Your task to perform on an android device: clear all cookies in the chrome app Image 0: 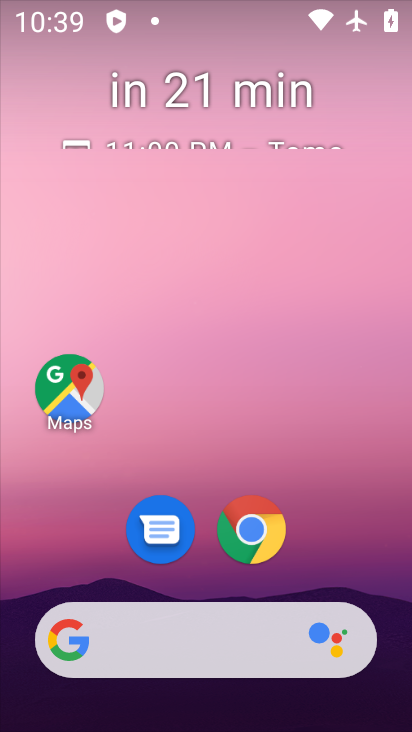
Step 0: drag from (315, 641) to (229, 317)
Your task to perform on an android device: clear all cookies in the chrome app Image 1: 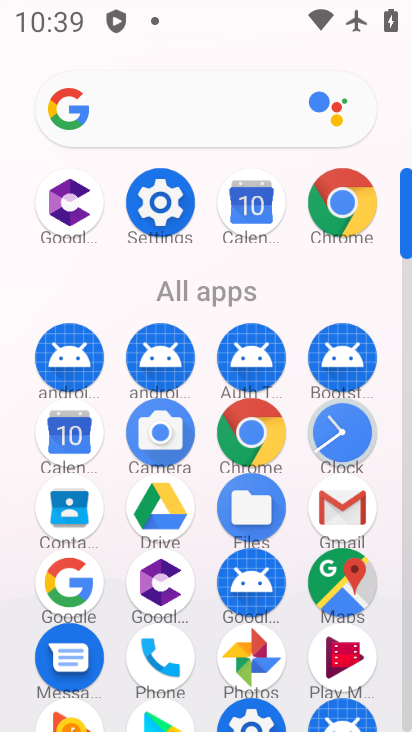
Step 1: click (251, 428)
Your task to perform on an android device: clear all cookies in the chrome app Image 2: 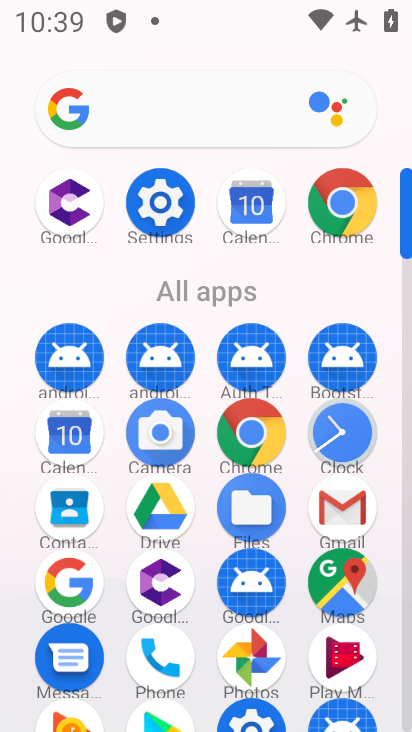
Step 2: click (251, 428)
Your task to perform on an android device: clear all cookies in the chrome app Image 3: 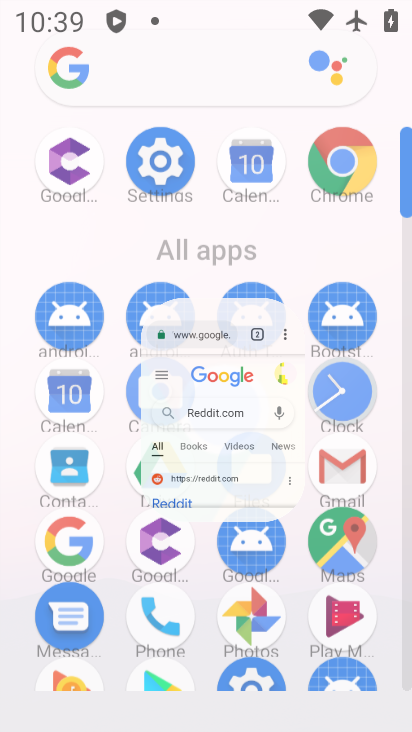
Step 3: click (251, 428)
Your task to perform on an android device: clear all cookies in the chrome app Image 4: 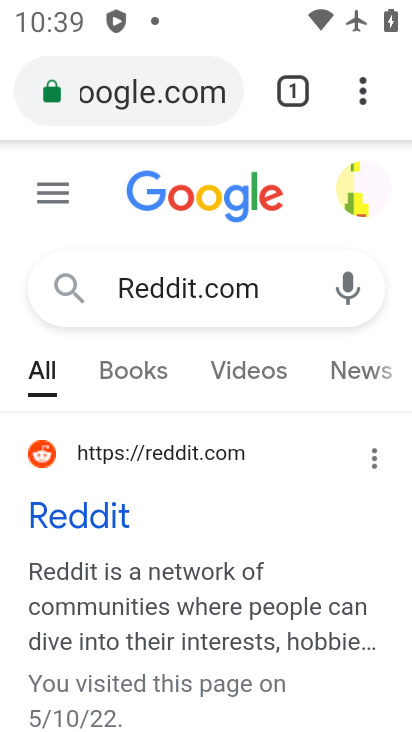
Step 4: drag from (360, 96) to (80, 554)
Your task to perform on an android device: clear all cookies in the chrome app Image 5: 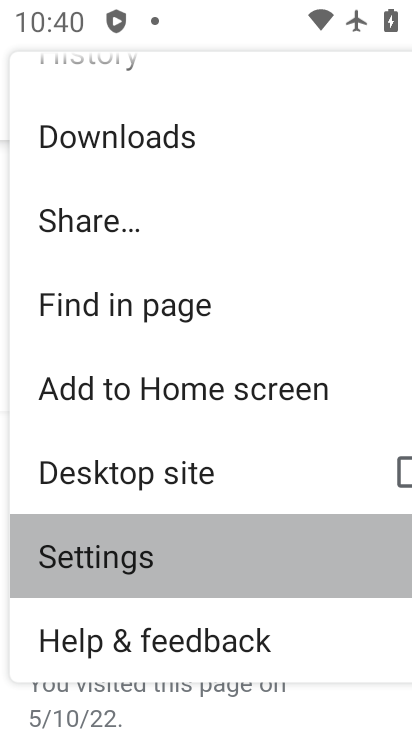
Step 5: click (80, 554)
Your task to perform on an android device: clear all cookies in the chrome app Image 6: 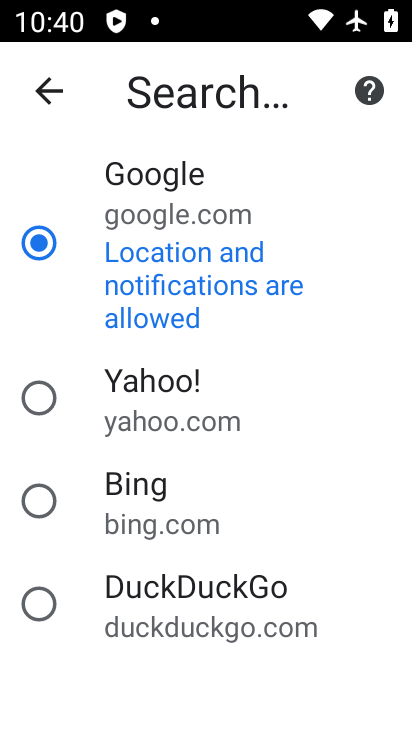
Step 6: click (46, 80)
Your task to perform on an android device: clear all cookies in the chrome app Image 7: 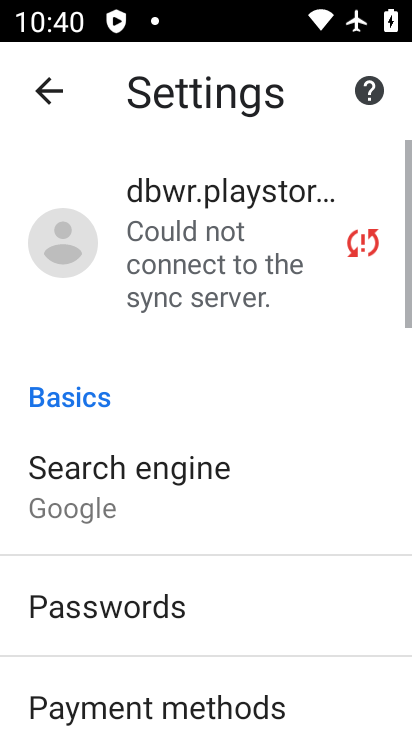
Step 7: drag from (222, 597) to (172, 239)
Your task to perform on an android device: clear all cookies in the chrome app Image 8: 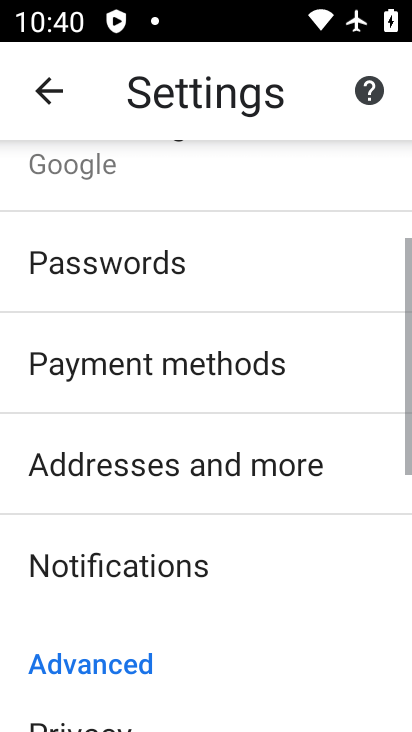
Step 8: drag from (226, 510) to (237, 226)
Your task to perform on an android device: clear all cookies in the chrome app Image 9: 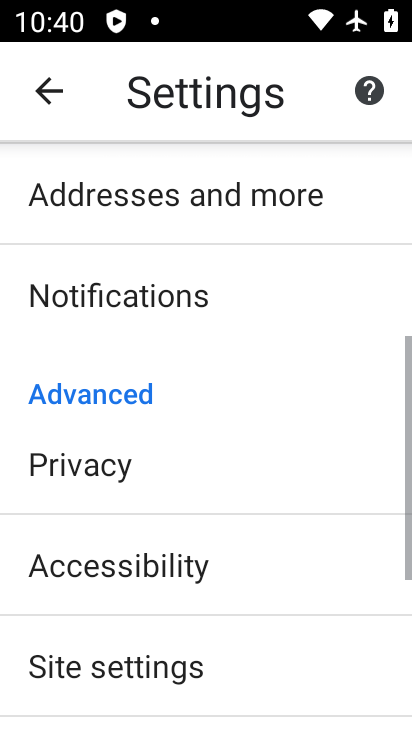
Step 9: drag from (219, 461) to (207, 157)
Your task to perform on an android device: clear all cookies in the chrome app Image 10: 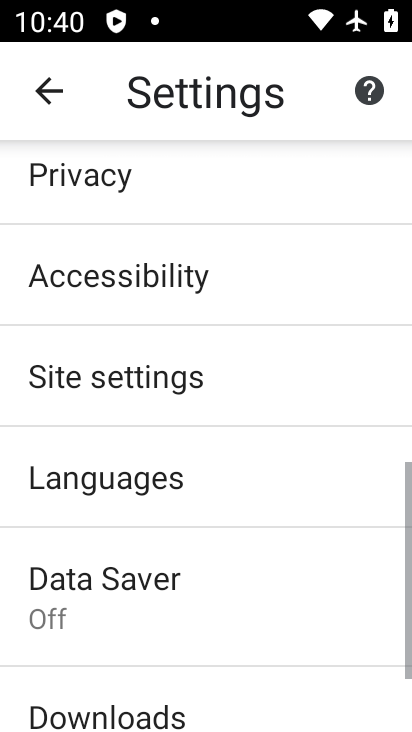
Step 10: drag from (164, 545) to (144, 255)
Your task to perform on an android device: clear all cookies in the chrome app Image 11: 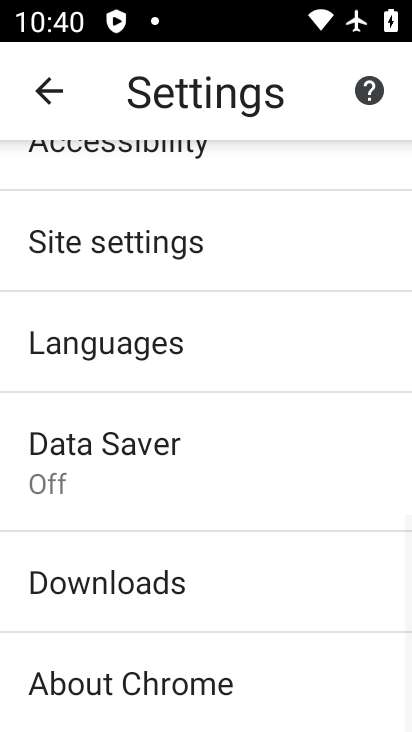
Step 11: click (89, 257)
Your task to perform on an android device: clear all cookies in the chrome app Image 12: 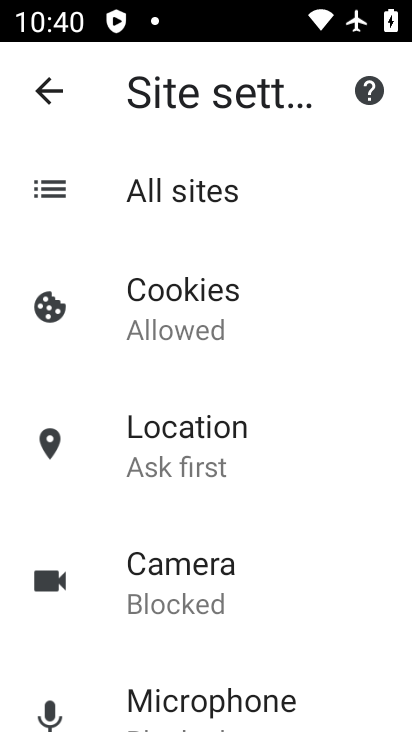
Step 12: click (185, 299)
Your task to perform on an android device: clear all cookies in the chrome app Image 13: 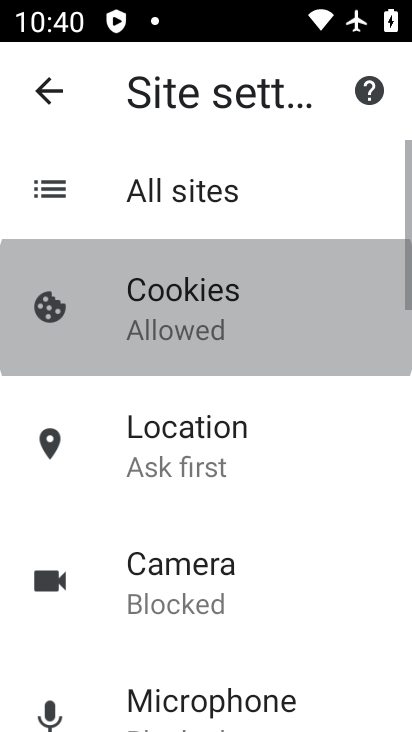
Step 13: click (185, 299)
Your task to perform on an android device: clear all cookies in the chrome app Image 14: 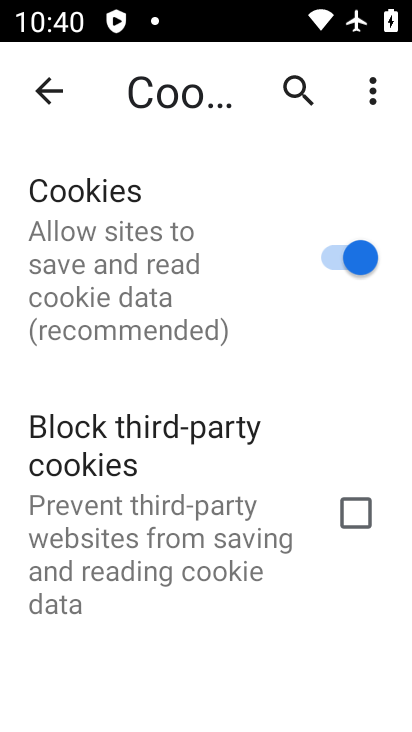
Step 14: task complete